Your task to perform on an android device: Do I have any events today? Image 0: 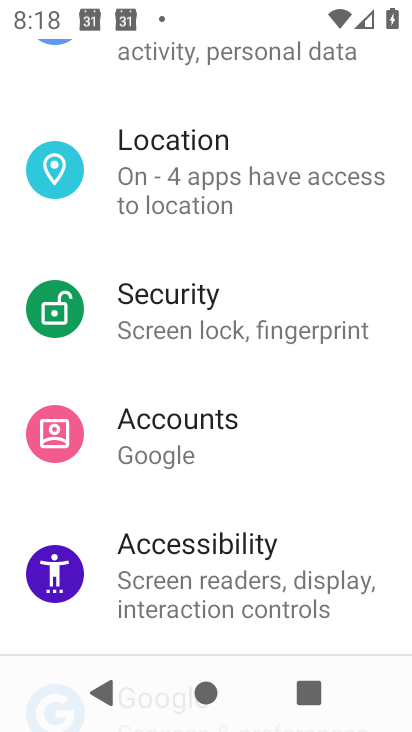
Step 0: press home button
Your task to perform on an android device: Do I have any events today? Image 1: 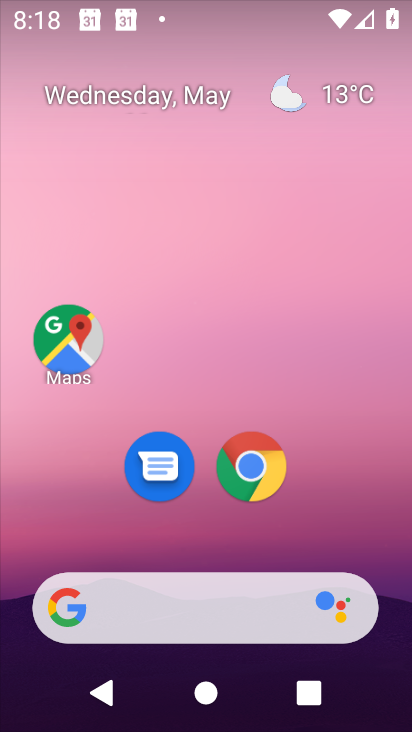
Step 1: drag from (202, 561) to (249, 43)
Your task to perform on an android device: Do I have any events today? Image 2: 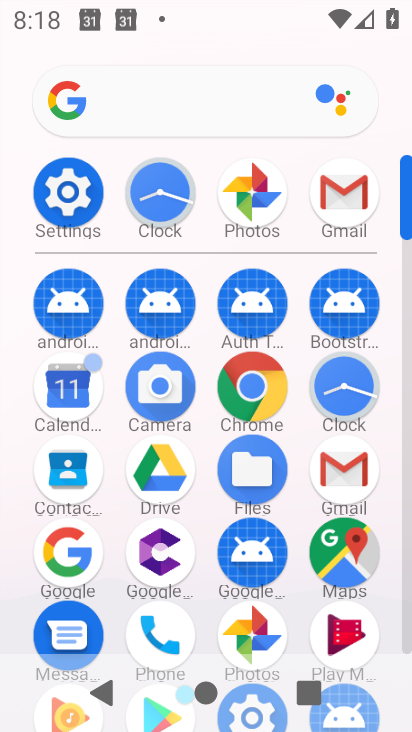
Step 2: click (65, 381)
Your task to perform on an android device: Do I have any events today? Image 3: 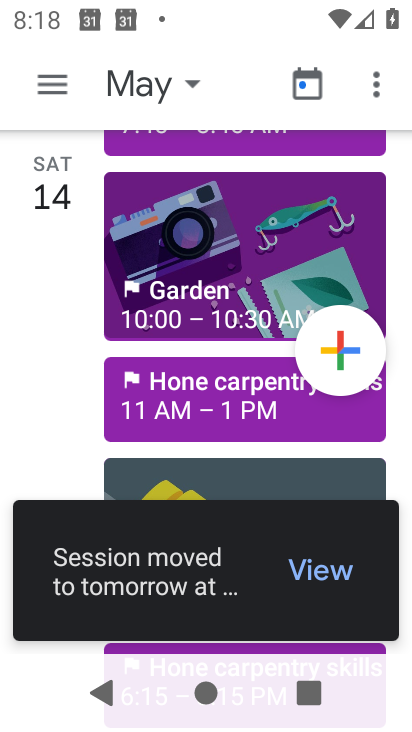
Step 3: click (51, 85)
Your task to perform on an android device: Do I have any events today? Image 4: 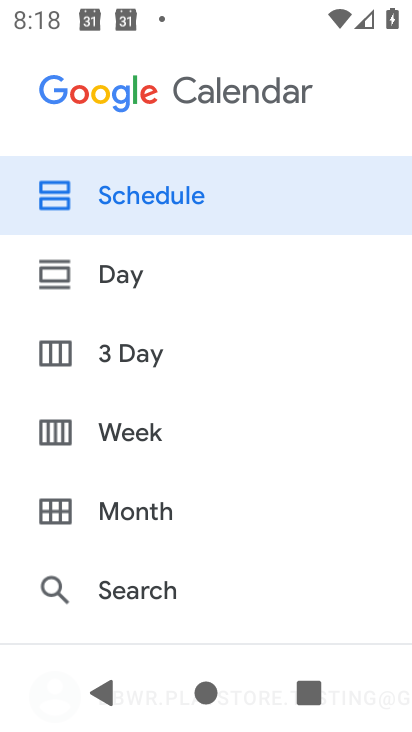
Step 4: drag from (64, 541) to (101, 232)
Your task to perform on an android device: Do I have any events today? Image 5: 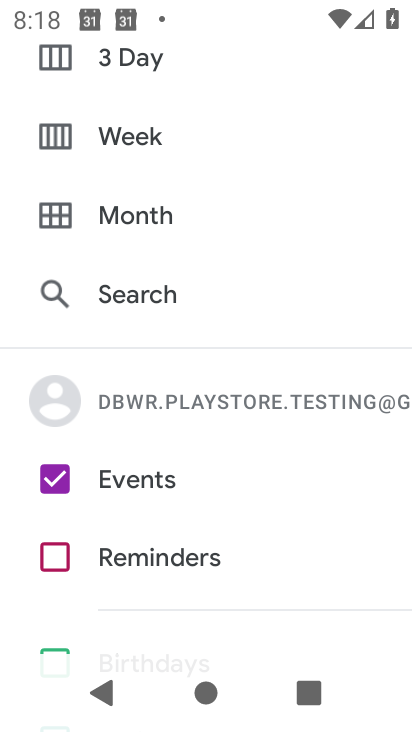
Step 5: drag from (82, 116) to (80, 511)
Your task to perform on an android device: Do I have any events today? Image 6: 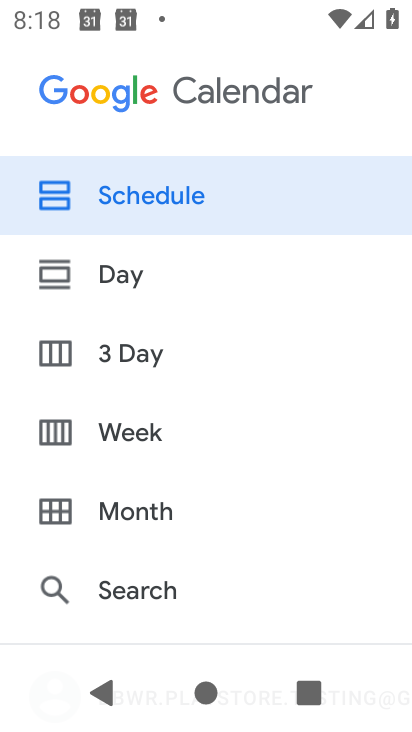
Step 6: click (86, 278)
Your task to perform on an android device: Do I have any events today? Image 7: 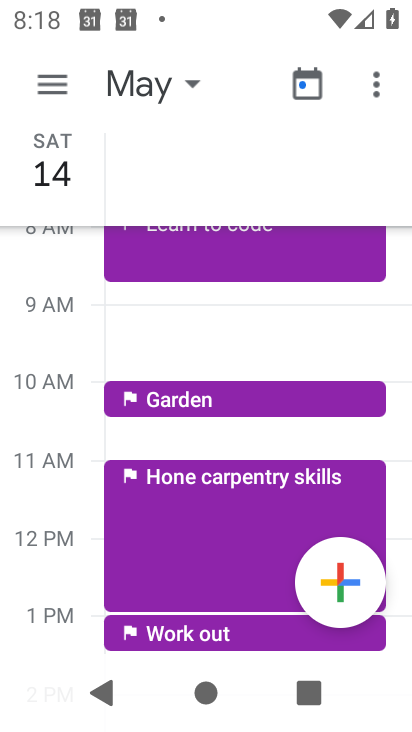
Step 7: click (192, 79)
Your task to perform on an android device: Do I have any events today? Image 8: 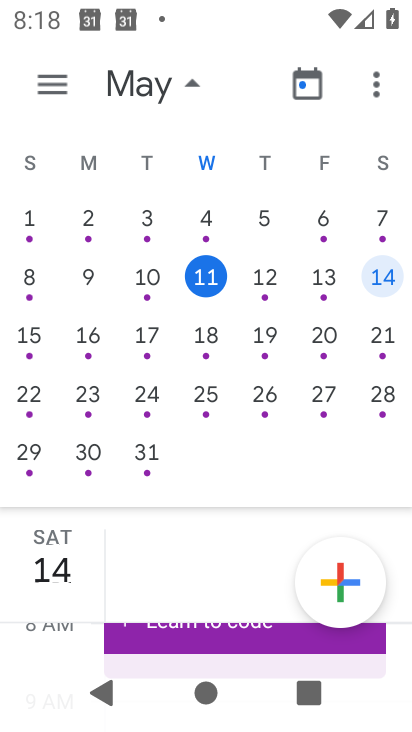
Step 8: click (188, 273)
Your task to perform on an android device: Do I have any events today? Image 9: 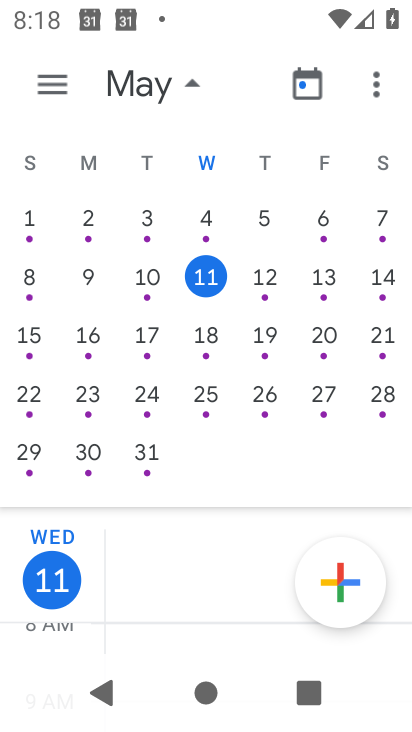
Step 9: task complete